Your task to perform on an android device: How do I get to the nearest Macy's? Image 0: 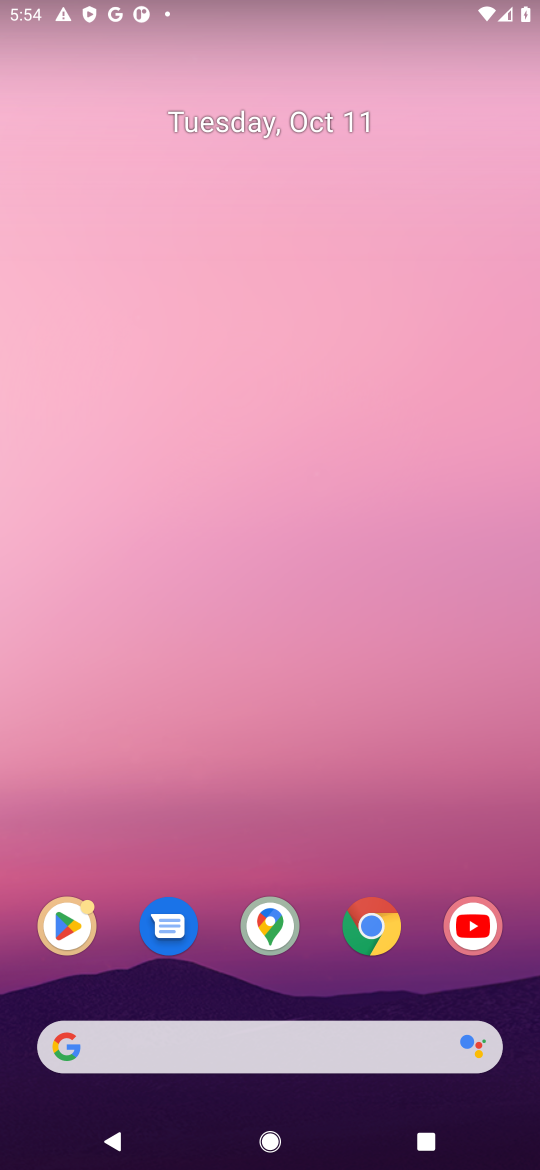
Step 0: click (111, 1034)
Your task to perform on an android device: How do I get to the nearest Macy's? Image 1: 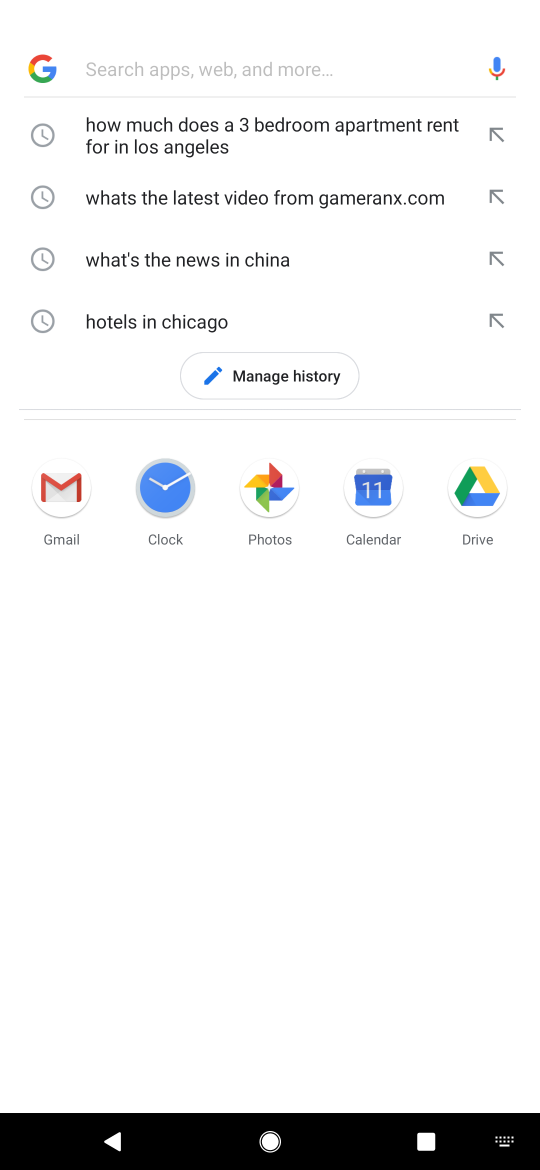
Step 1: type "how do i get to the nearest macys"
Your task to perform on an android device: How do I get to the nearest Macy's? Image 2: 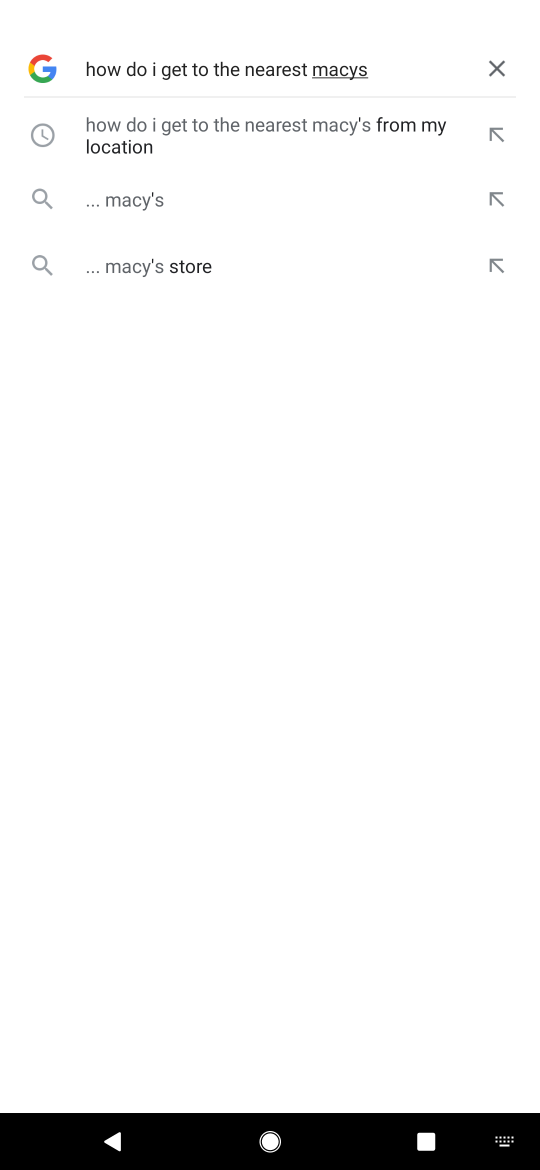
Step 2: click (154, 201)
Your task to perform on an android device: How do I get to the nearest Macy's? Image 3: 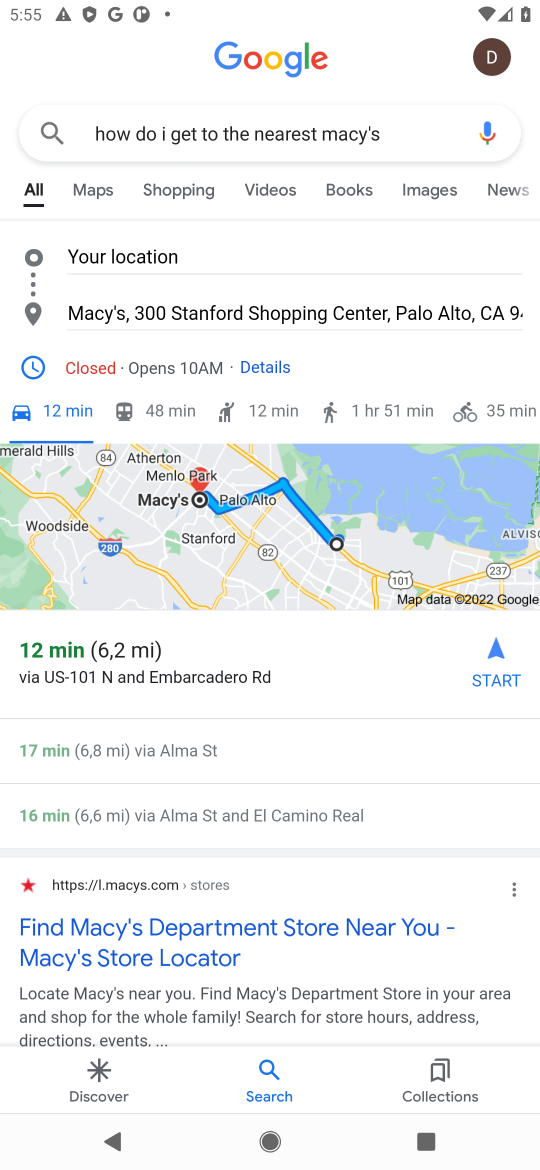
Step 3: task complete